Your task to perform on an android device: Open sound settings Image 0: 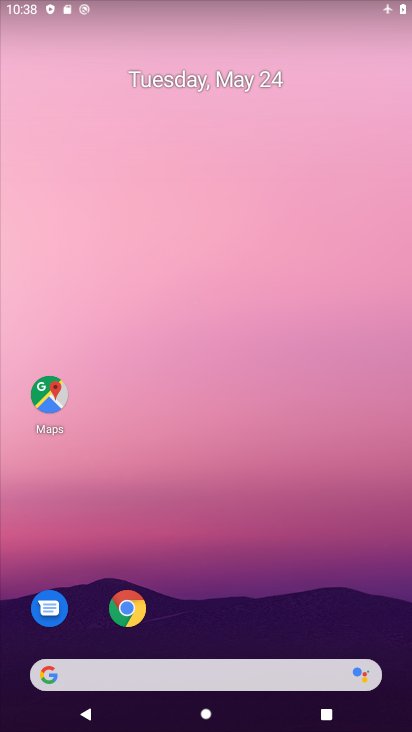
Step 0: drag from (388, 625) to (335, 109)
Your task to perform on an android device: Open sound settings Image 1: 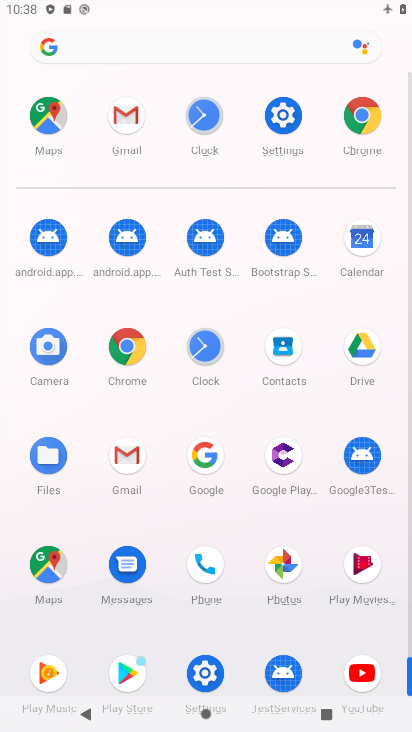
Step 1: click (204, 673)
Your task to perform on an android device: Open sound settings Image 2: 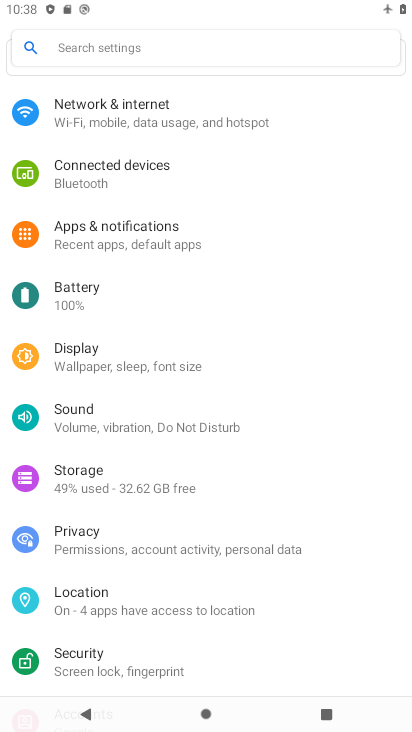
Step 2: click (95, 411)
Your task to perform on an android device: Open sound settings Image 3: 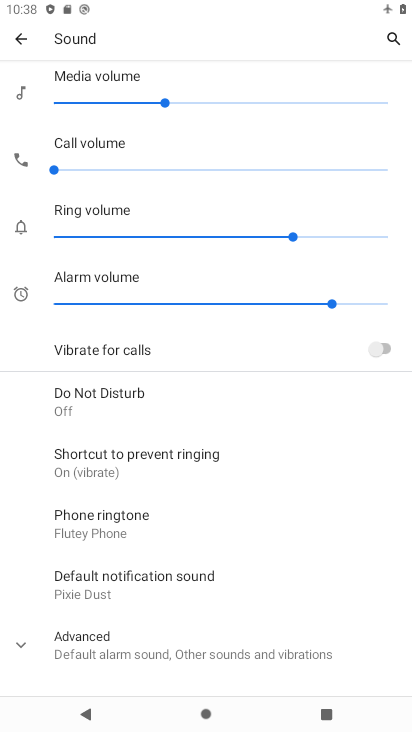
Step 3: drag from (291, 523) to (278, 264)
Your task to perform on an android device: Open sound settings Image 4: 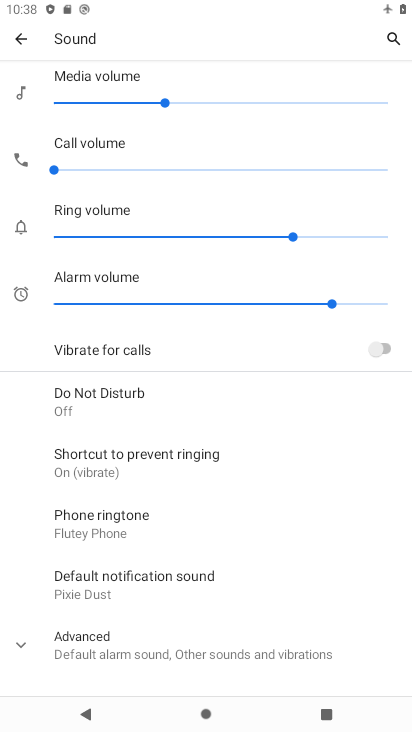
Step 4: click (20, 644)
Your task to perform on an android device: Open sound settings Image 5: 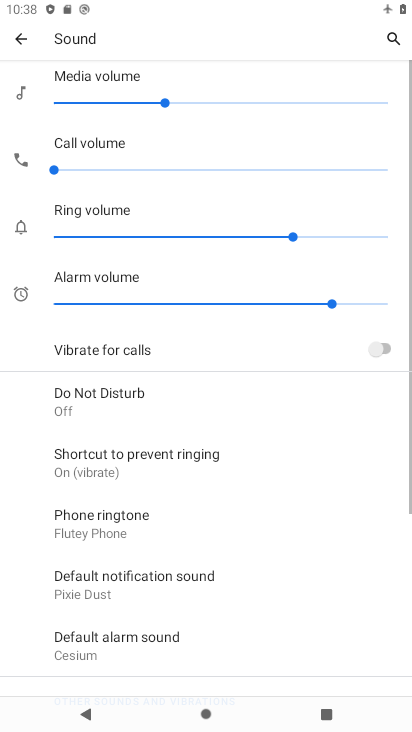
Step 5: task complete